Your task to perform on an android device: turn off location history Image 0: 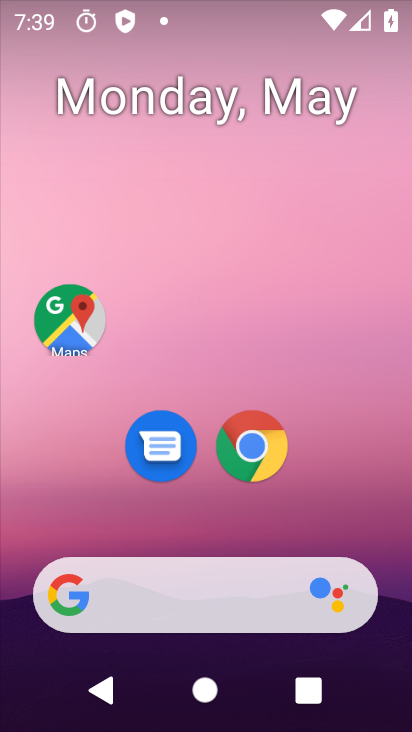
Step 0: click (68, 325)
Your task to perform on an android device: turn off location history Image 1: 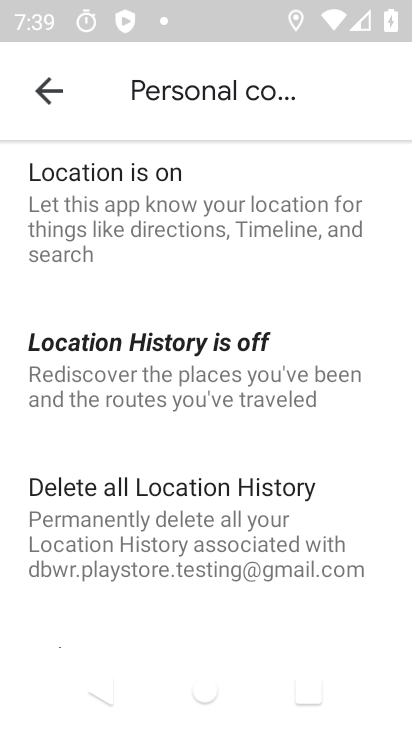
Step 1: click (109, 365)
Your task to perform on an android device: turn off location history Image 2: 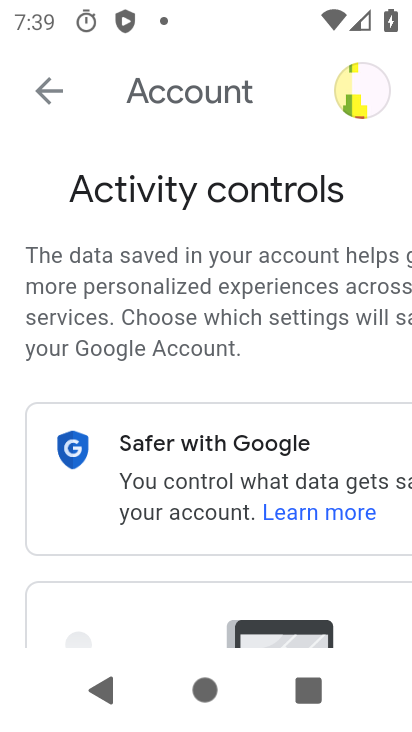
Step 2: task complete